Your task to perform on an android device: Open network settings Image 0: 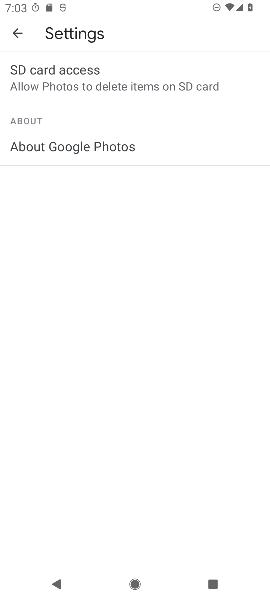
Step 0: press home button
Your task to perform on an android device: Open network settings Image 1: 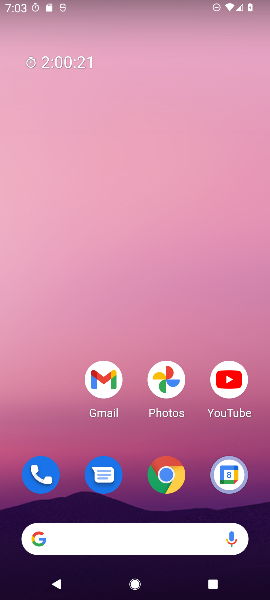
Step 1: drag from (56, 403) to (41, 248)
Your task to perform on an android device: Open network settings Image 2: 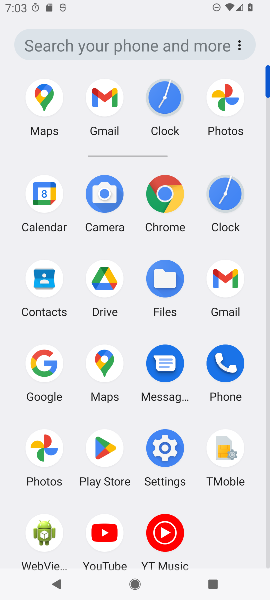
Step 2: click (164, 449)
Your task to perform on an android device: Open network settings Image 3: 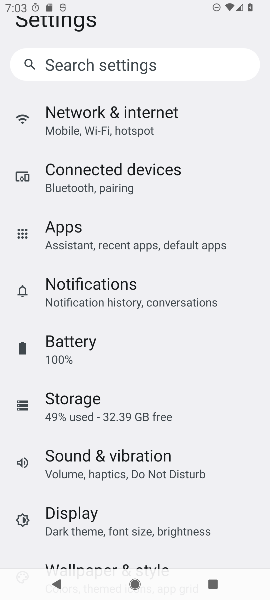
Step 3: drag from (215, 127) to (215, 274)
Your task to perform on an android device: Open network settings Image 4: 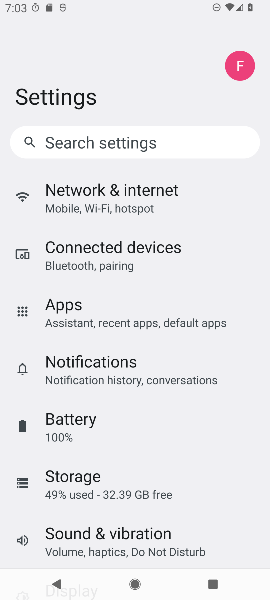
Step 4: click (146, 197)
Your task to perform on an android device: Open network settings Image 5: 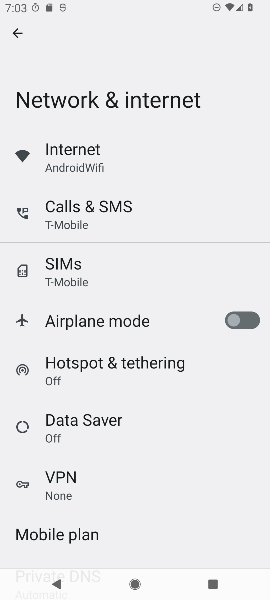
Step 5: task complete